Your task to perform on an android device: turn on translation in the chrome app Image 0: 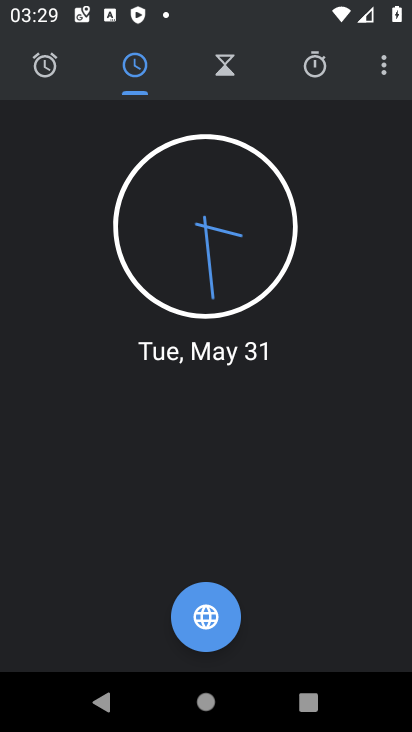
Step 0: press home button
Your task to perform on an android device: turn on translation in the chrome app Image 1: 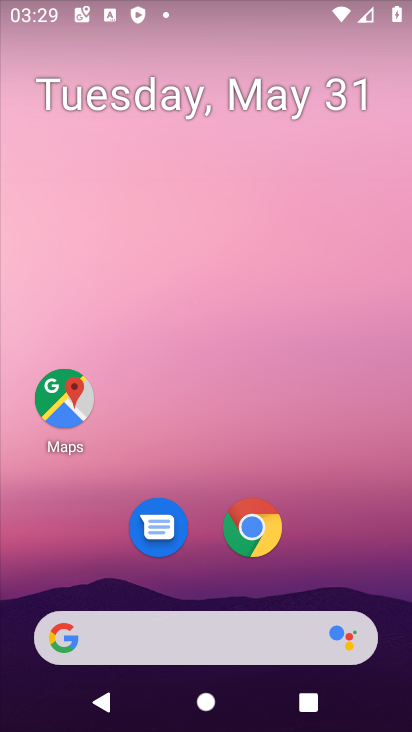
Step 1: click (258, 534)
Your task to perform on an android device: turn on translation in the chrome app Image 2: 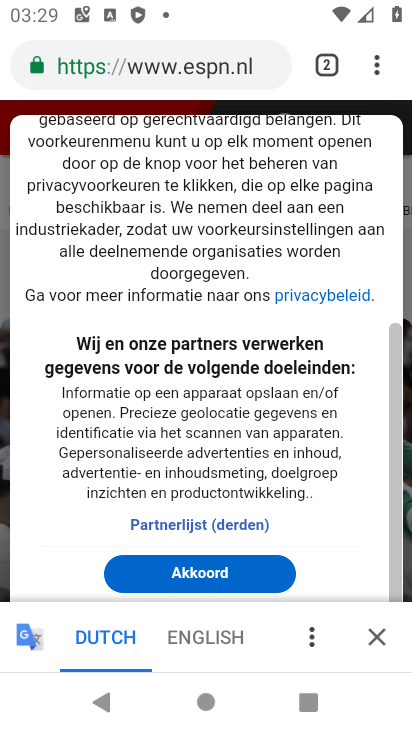
Step 2: click (375, 74)
Your task to perform on an android device: turn on translation in the chrome app Image 3: 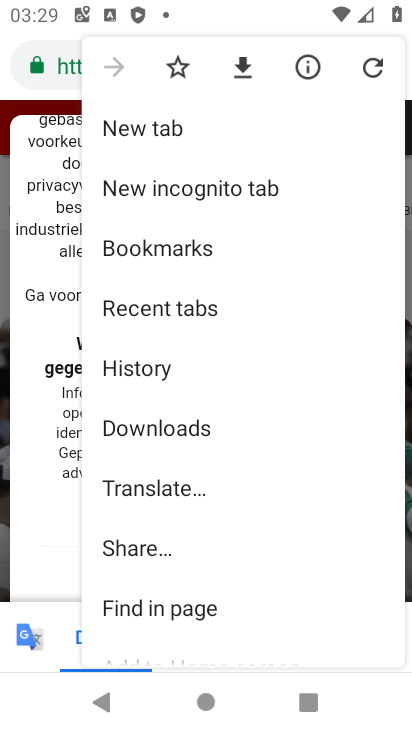
Step 3: drag from (277, 481) to (298, 219)
Your task to perform on an android device: turn on translation in the chrome app Image 4: 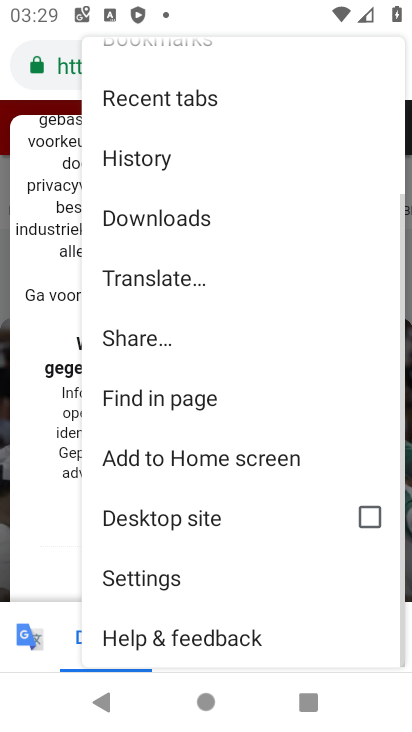
Step 4: click (140, 561)
Your task to perform on an android device: turn on translation in the chrome app Image 5: 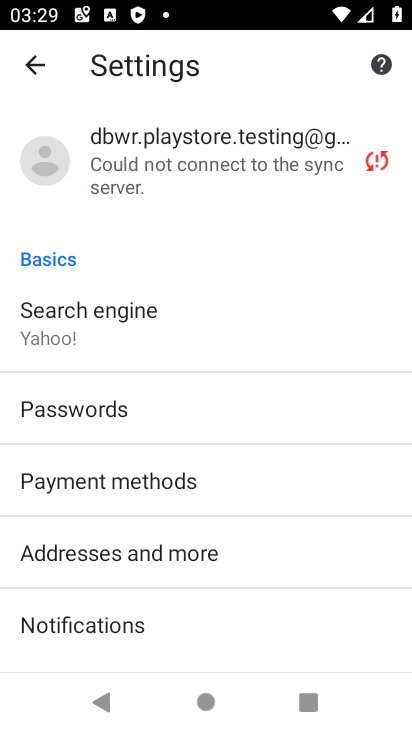
Step 5: drag from (235, 583) to (223, 322)
Your task to perform on an android device: turn on translation in the chrome app Image 6: 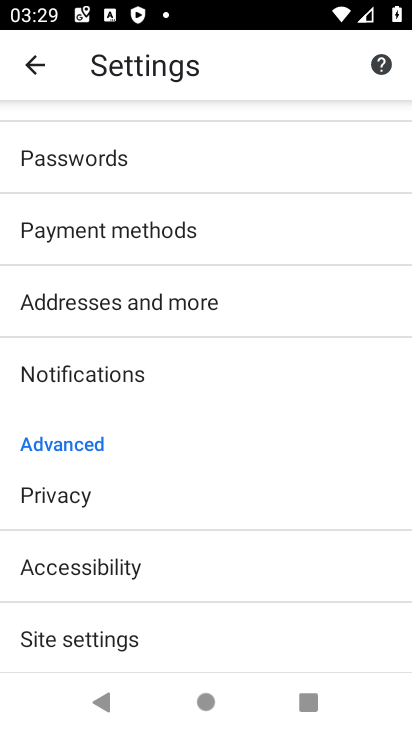
Step 6: drag from (85, 631) to (210, 361)
Your task to perform on an android device: turn on translation in the chrome app Image 7: 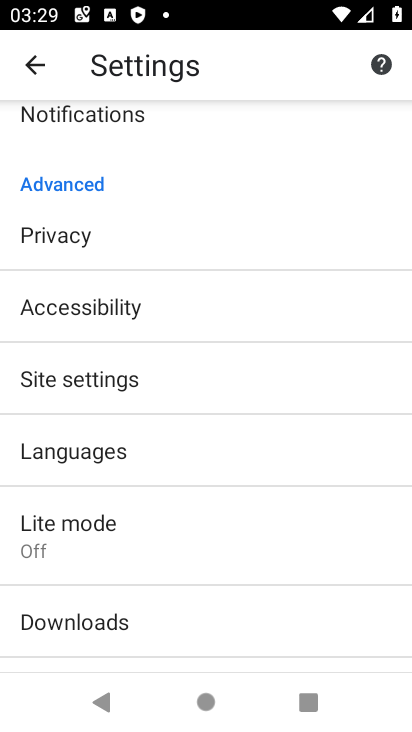
Step 7: click (73, 447)
Your task to perform on an android device: turn on translation in the chrome app Image 8: 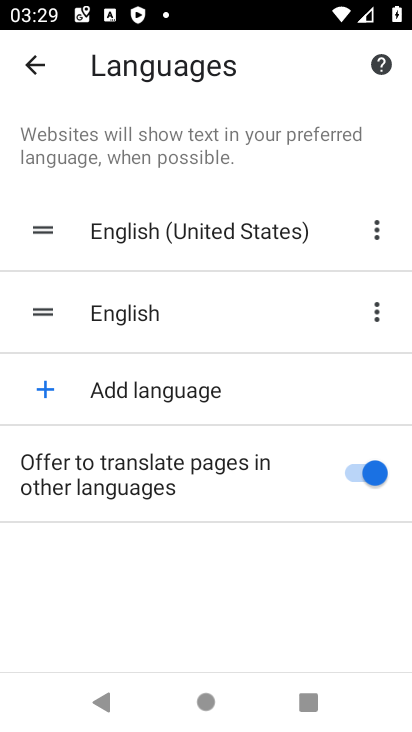
Step 8: task complete